Your task to perform on an android device: check the backup settings in the google photos Image 0: 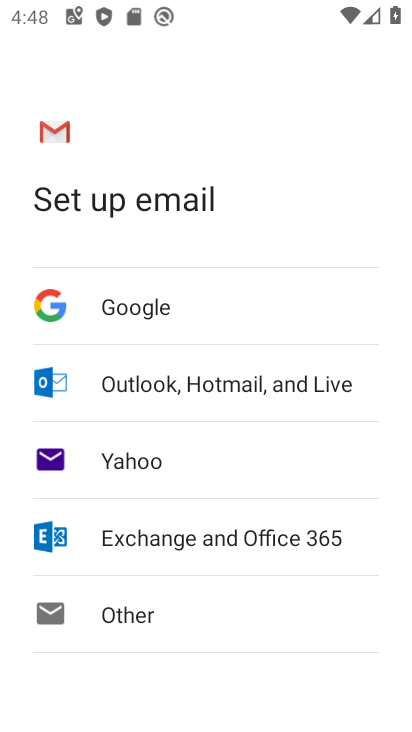
Step 0: click (256, 582)
Your task to perform on an android device: check the backup settings in the google photos Image 1: 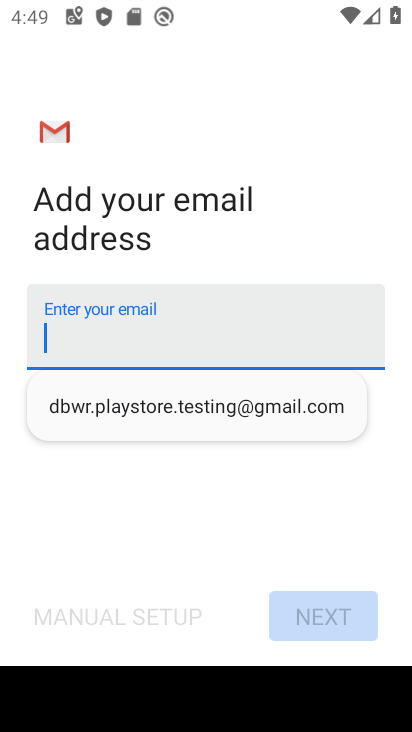
Step 1: press back button
Your task to perform on an android device: check the backup settings in the google photos Image 2: 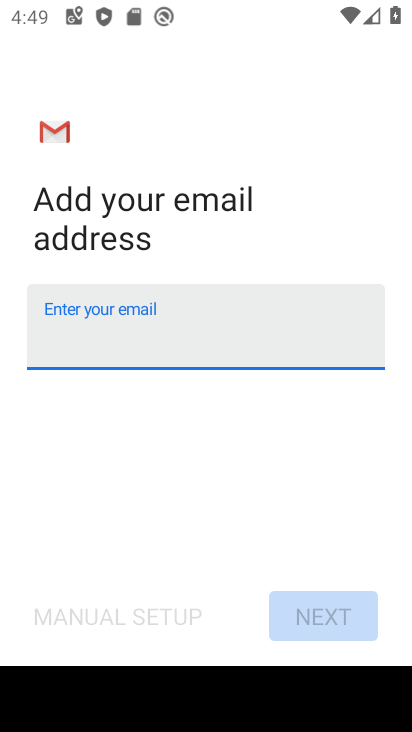
Step 2: press home button
Your task to perform on an android device: check the backup settings in the google photos Image 3: 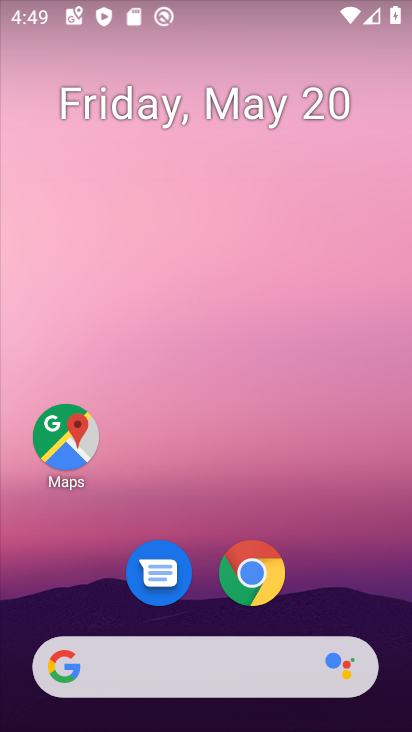
Step 3: drag from (408, 604) to (350, 114)
Your task to perform on an android device: check the backup settings in the google photos Image 4: 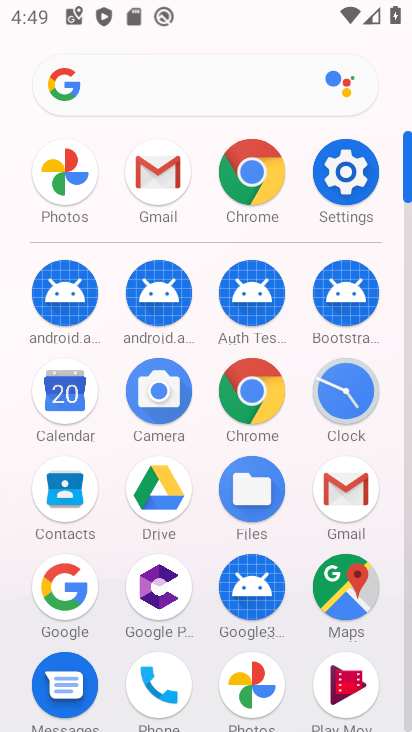
Step 4: click (255, 690)
Your task to perform on an android device: check the backup settings in the google photos Image 5: 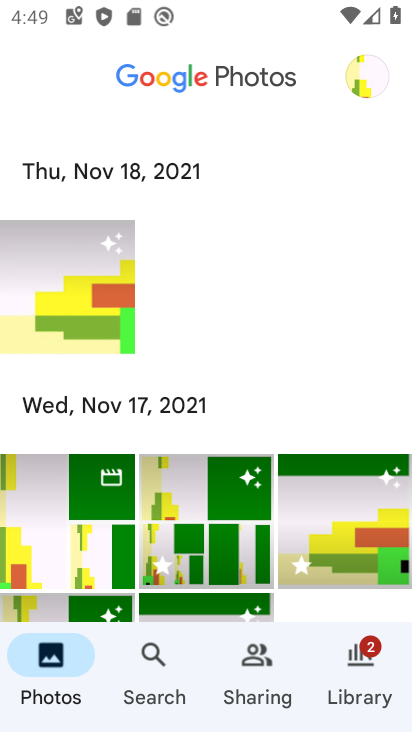
Step 5: click (364, 77)
Your task to perform on an android device: check the backup settings in the google photos Image 6: 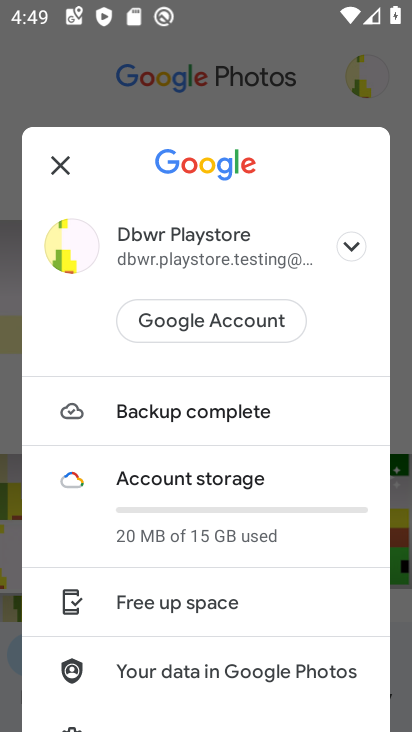
Step 6: drag from (255, 573) to (266, 248)
Your task to perform on an android device: check the backup settings in the google photos Image 7: 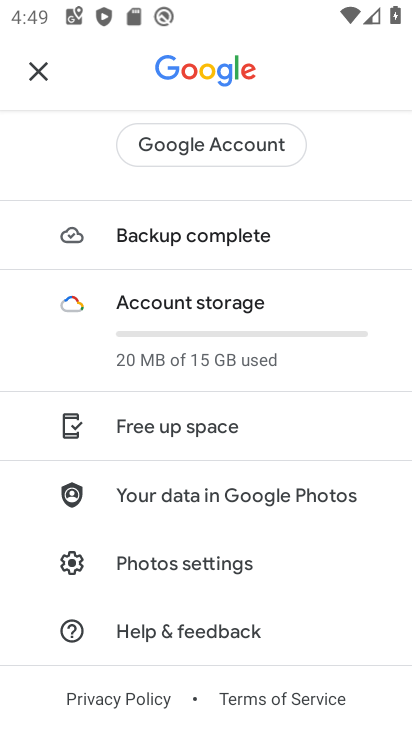
Step 7: click (170, 567)
Your task to perform on an android device: check the backup settings in the google photos Image 8: 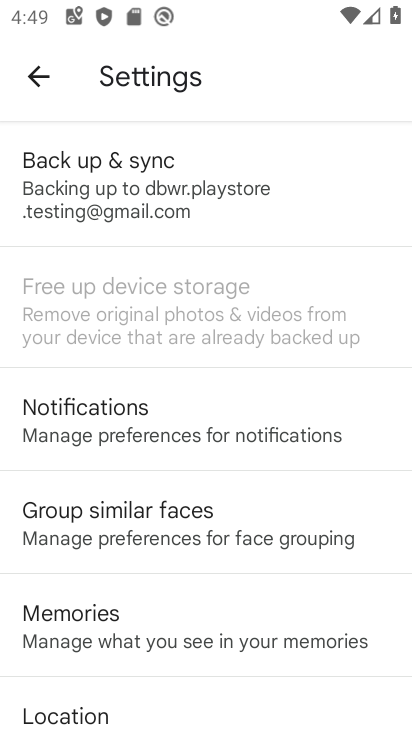
Step 8: click (119, 197)
Your task to perform on an android device: check the backup settings in the google photos Image 9: 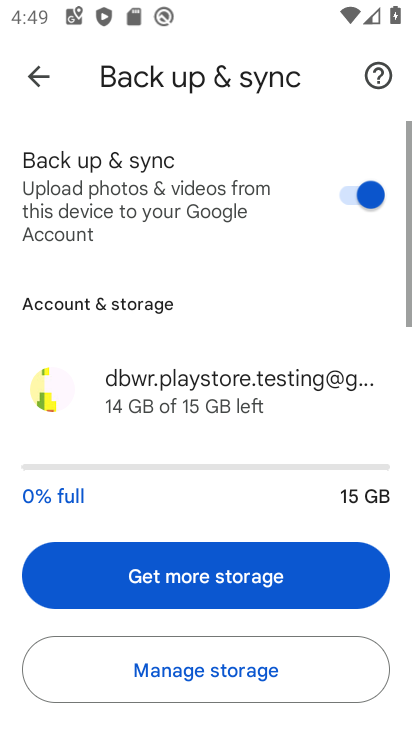
Step 9: task complete